Your task to perform on an android device: change notification settings in the gmail app Image 0: 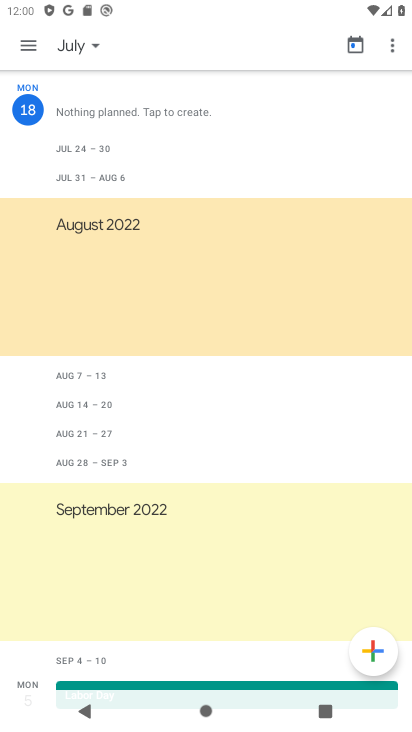
Step 0: press home button
Your task to perform on an android device: change notification settings in the gmail app Image 1: 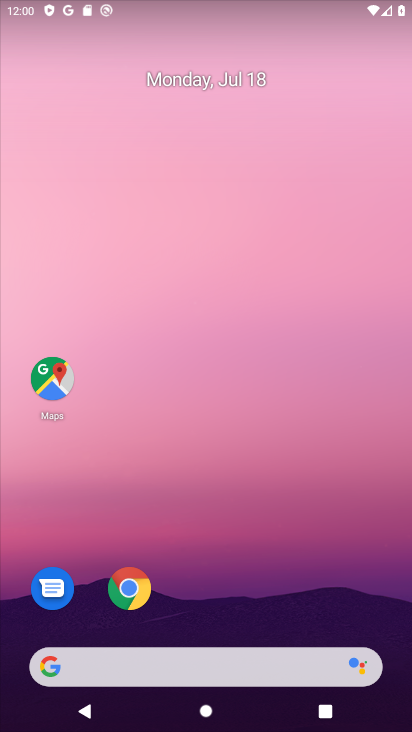
Step 1: drag from (213, 601) to (176, 118)
Your task to perform on an android device: change notification settings in the gmail app Image 2: 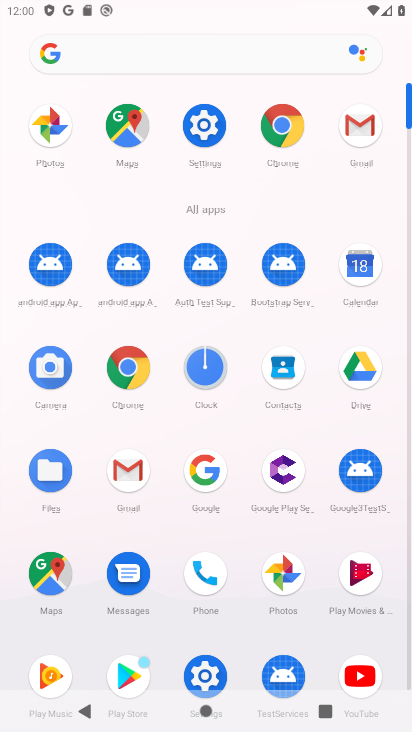
Step 2: click (355, 128)
Your task to perform on an android device: change notification settings in the gmail app Image 3: 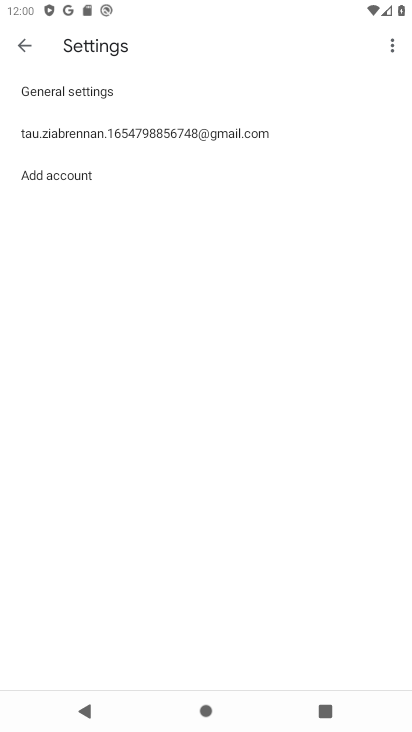
Step 3: click (262, 131)
Your task to perform on an android device: change notification settings in the gmail app Image 4: 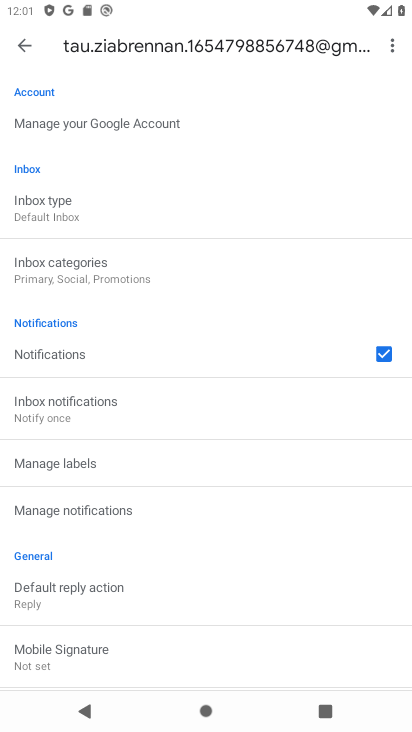
Step 4: click (52, 518)
Your task to perform on an android device: change notification settings in the gmail app Image 5: 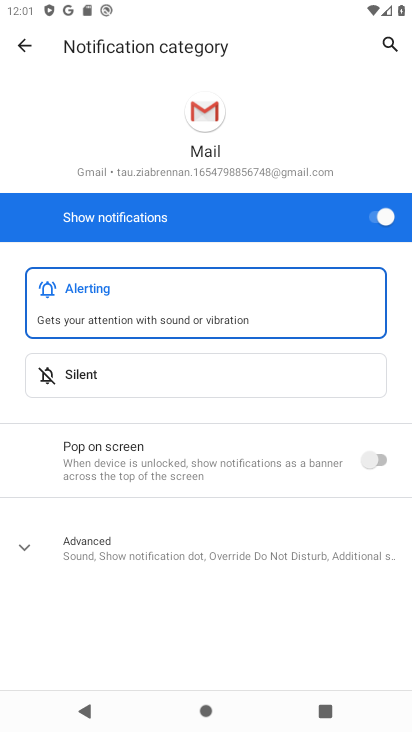
Step 5: click (369, 220)
Your task to perform on an android device: change notification settings in the gmail app Image 6: 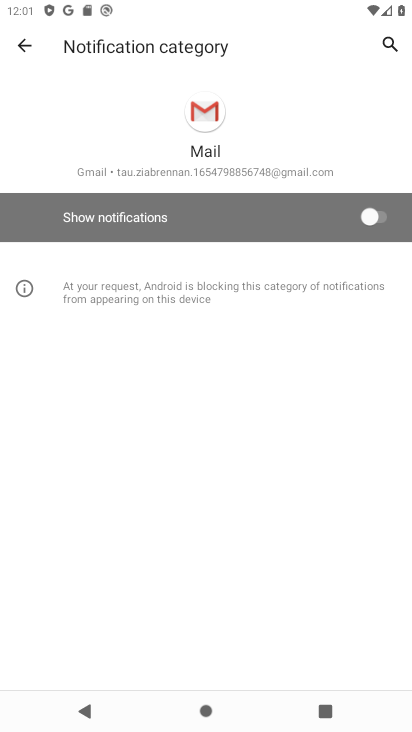
Step 6: task complete